Your task to perform on an android device: Go to ESPN.com Image 0: 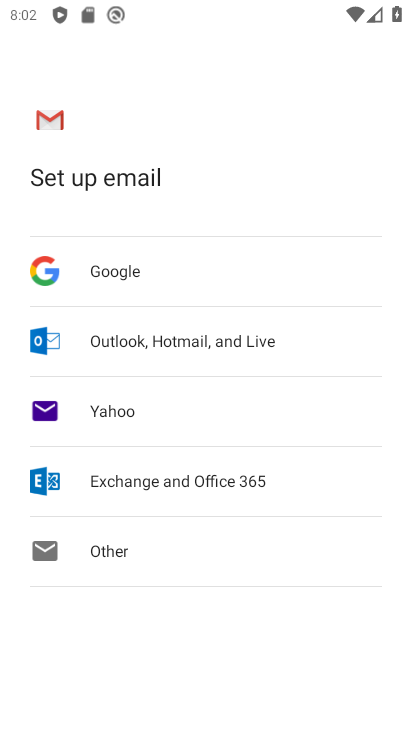
Step 0: press back button
Your task to perform on an android device: Go to ESPN.com Image 1: 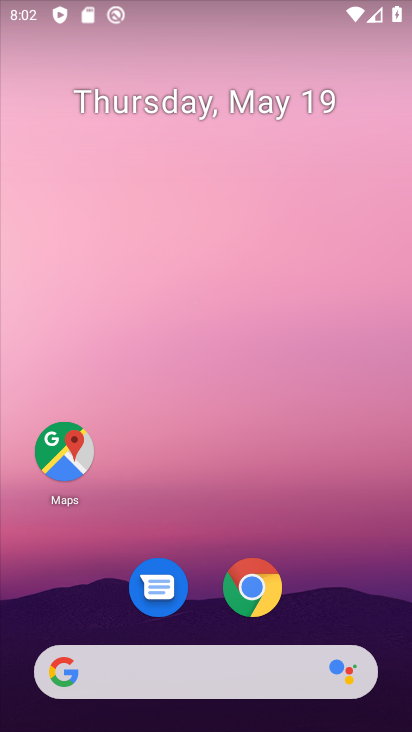
Step 1: drag from (248, 712) to (221, 193)
Your task to perform on an android device: Go to ESPN.com Image 2: 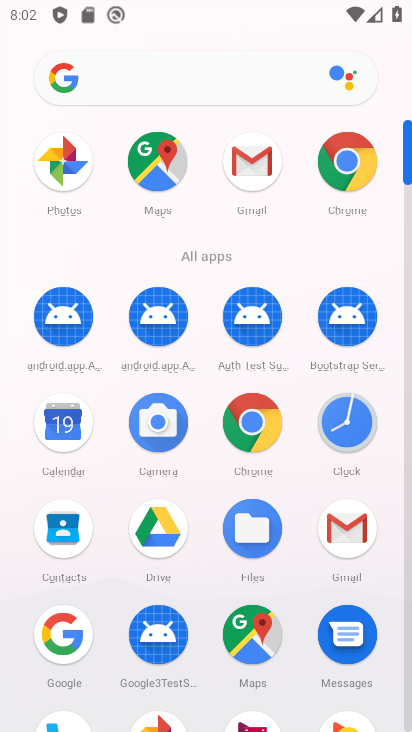
Step 2: drag from (300, 491) to (246, 175)
Your task to perform on an android device: Go to ESPN.com Image 3: 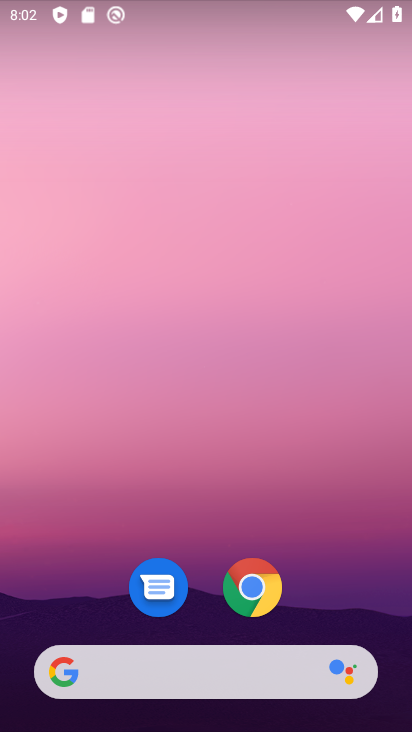
Step 3: drag from (277, 381) to (248, 18)
Your task to perform on an android device: Go to ESPN.com Image 4: 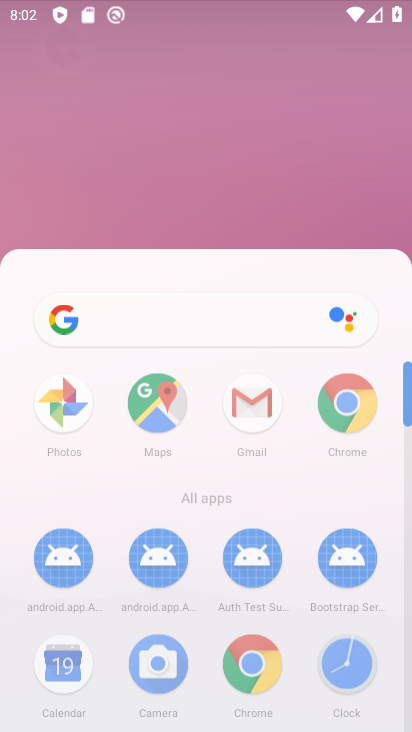
Step 4: click (175, 85)
Your task to perform on an android device: Go to ESPN.com Image 5: 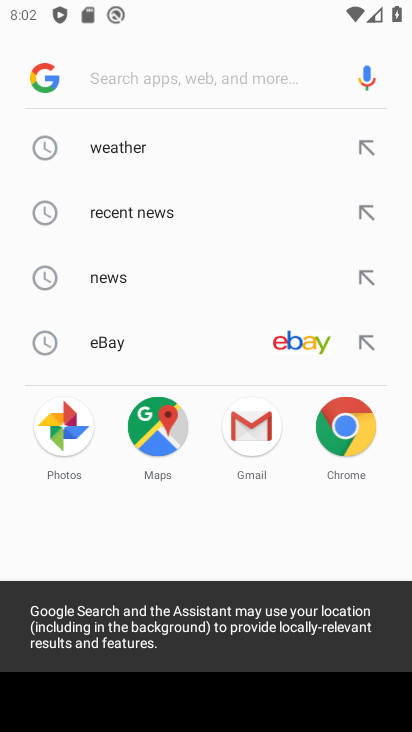
Step 5: press back button
Your task to perform on an android device: Go to ESPN.com Image 6: 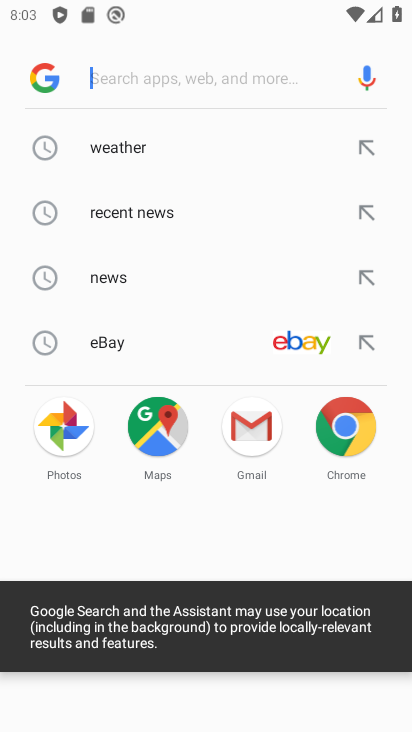
Step 6: press back button
Your task to perform on an android device: Go to ESPN.com Image 7: 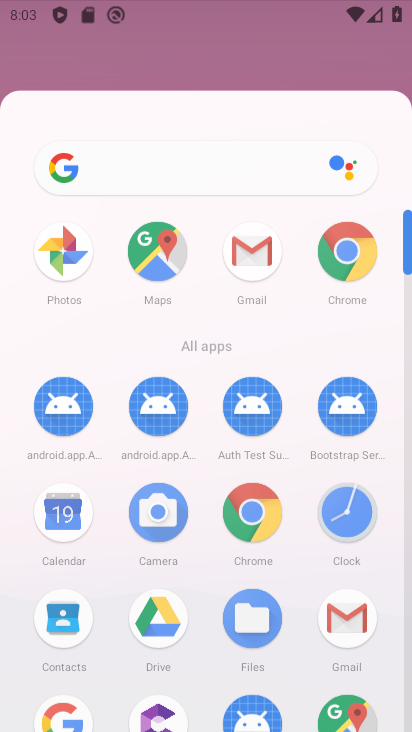
Step 7: press back button
Your task to perform on an android device: Go to ESPN.com Image 8: 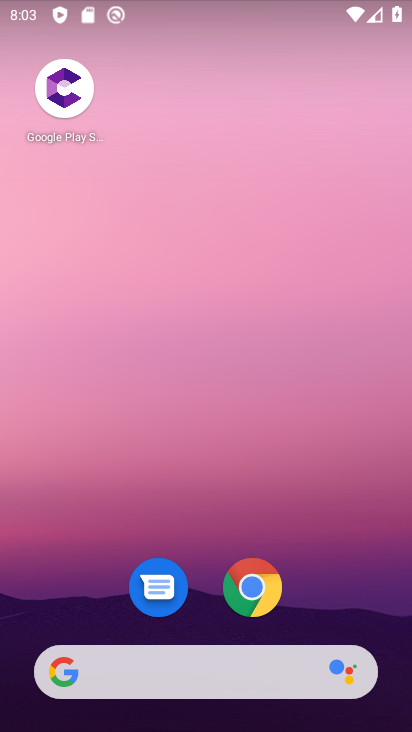
Step 8: drag from (320, 658) to (198, 69)
Your task to perform on an android device: Go to ESPN.com Image 9: 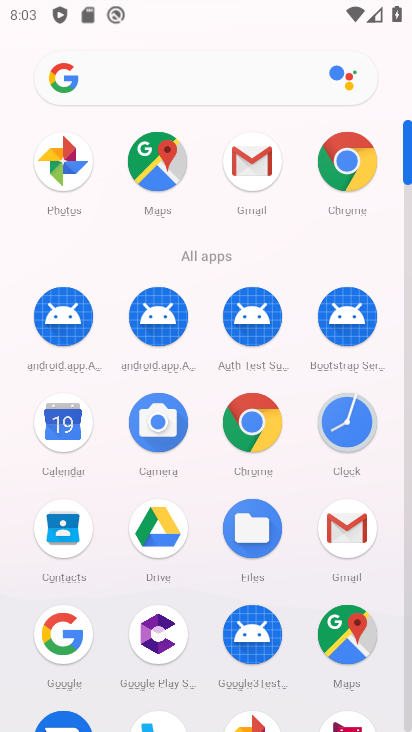
Step 9: click (345, 150)
Your task to perform on an android device: Go to ESPN.com Image 10: 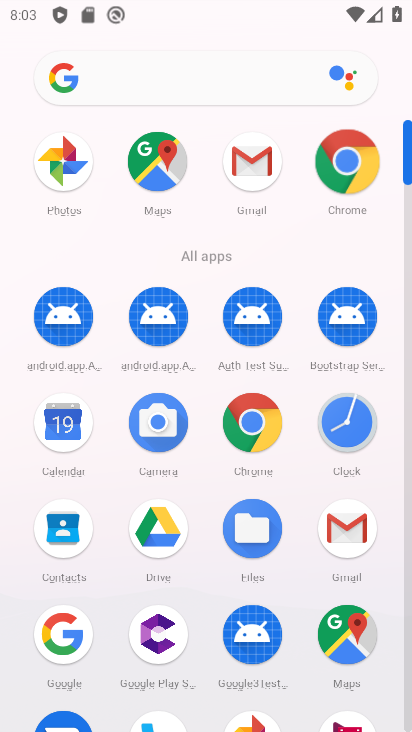
Step 10: click (345, 150)
Your task to perform on an android device: Go to ESPN.com Image 11: 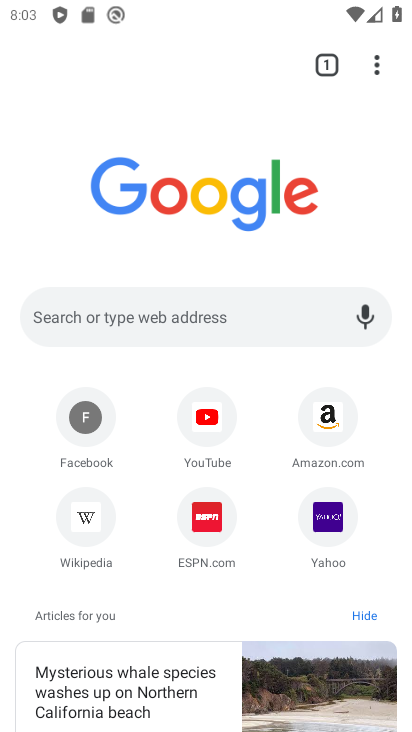
Step 11: click (209, 517)
Your task to perform on an android device: Go to ESPN.com Image 12: 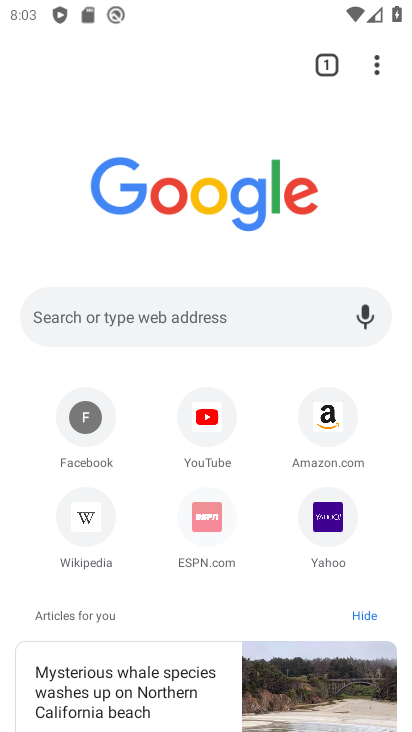
Step 12: click (211, 516)
Your task to perform on an android device: Go to ESPN.com Image 13: 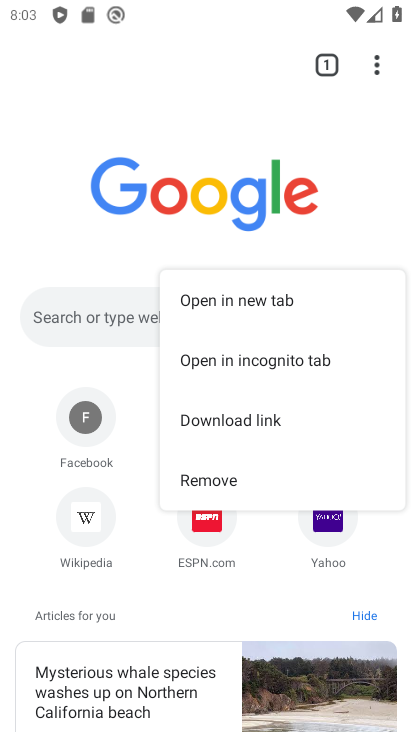
Step 13: click (231, 300)
Your task to perform on an android device: Go to ESPN.com Image 14: 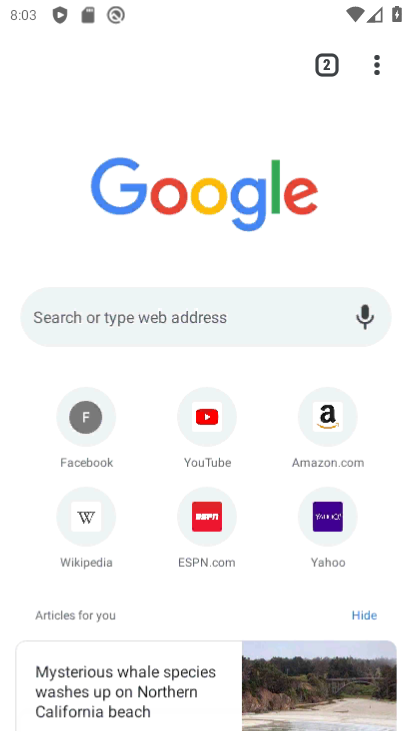
Step 14: click (231, 300)
Your task to perform on an android device: Go to ESPN.com Image 15: 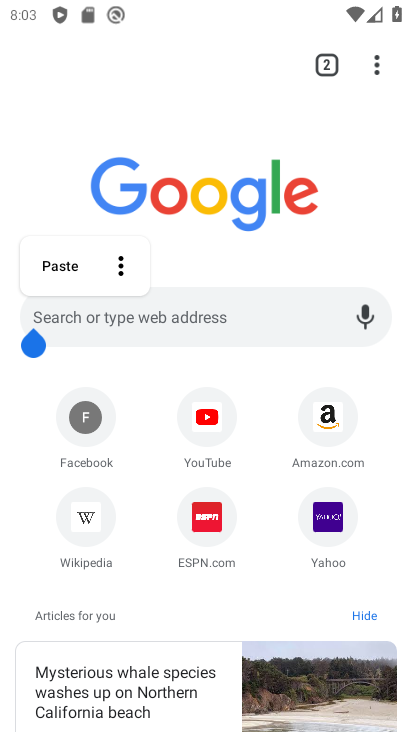
Step 15: click (252, 509)
Your task to perform on an android device: Go to ESPN.com Image 16: 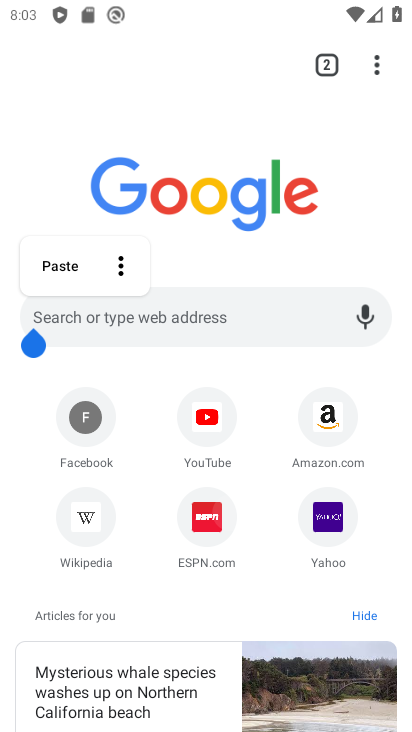
Step 16: click (218, 510)
Your task to perform on an android device: Go to ESPN.com Image 17: 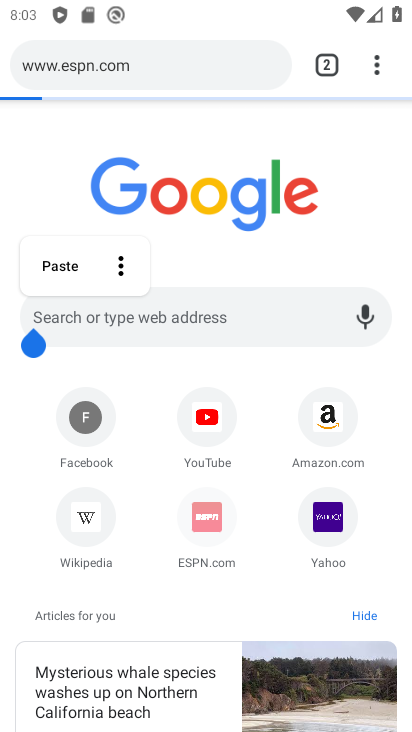
Step 17: click (215, 512)
Your task to perform on an android device: Go to ESPN.com Image 18: 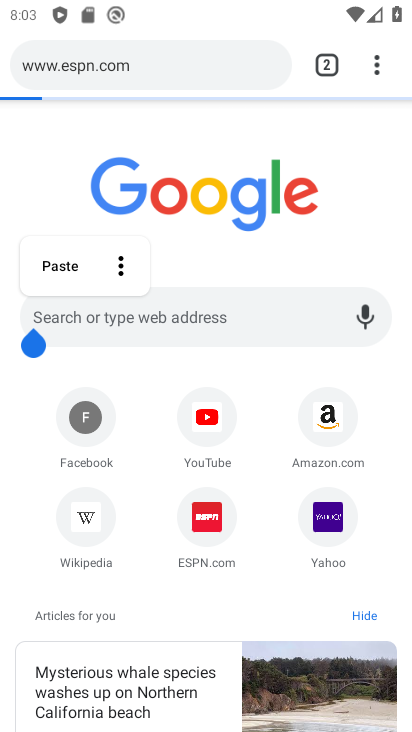
Step 18: click (215, 512)
Your task to perform on an android device: Go to ESPN.com Image 19: 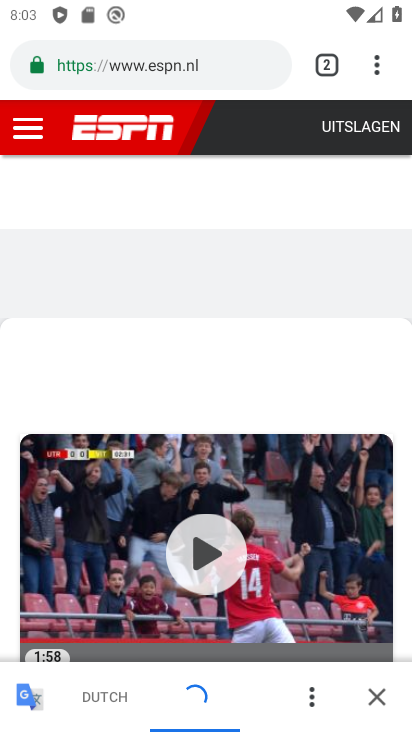
Step 19: task complete